Your task to perform on an android device: add a contact Image 0: 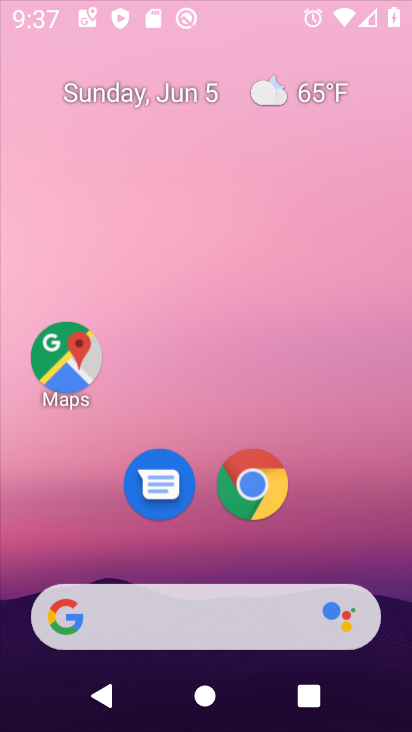
Step 0: press home button
Your task to perform on an android device: add a contact Image 1: 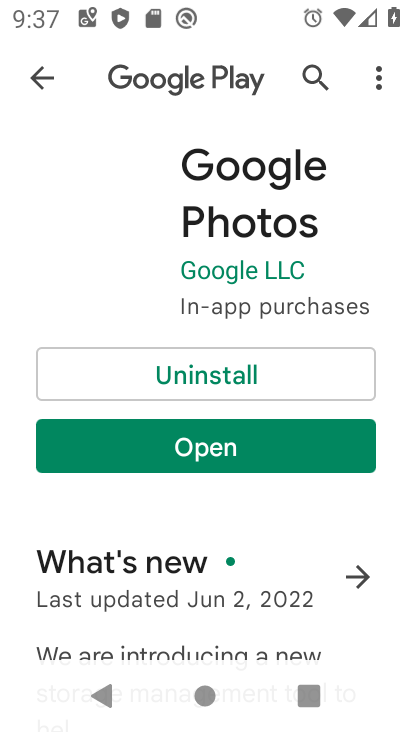
Step 1: click (337, 193)
Your task to perform on an android device: add a contact Image 2: 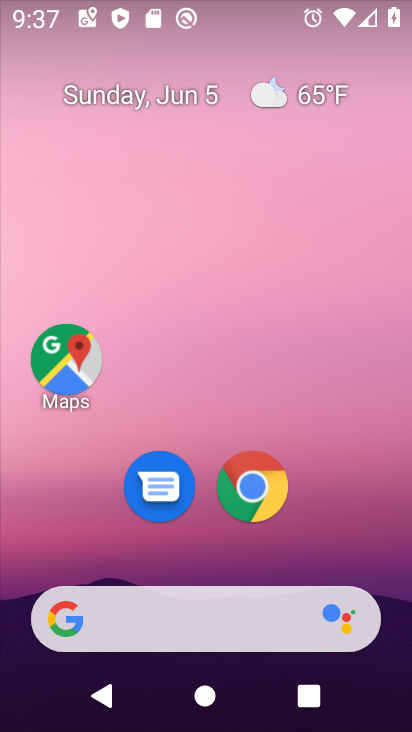
Step 2: drag from (345, 509) to (364, 168)
Your task to perform on an android device: add a contact Image 3: 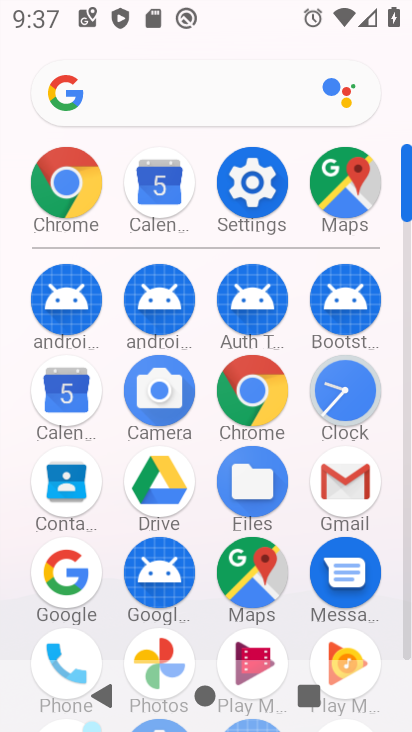
Step 3: click (57, 491)
Your task to perform on an android device: add a contact Image 4: 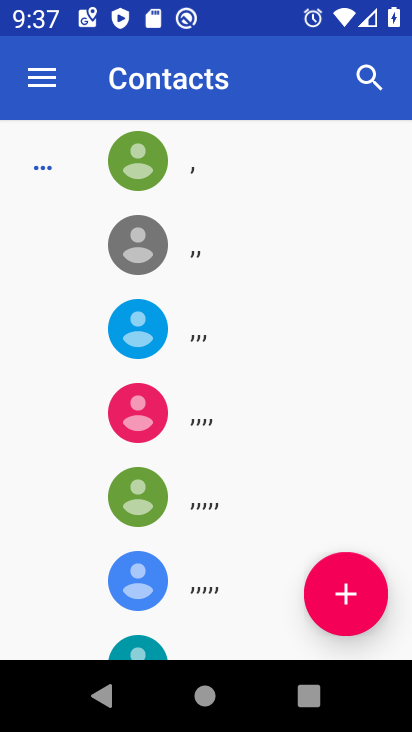
Step 4: click (317, 601)
Your task to perform on an android device: add a contact Image 5: 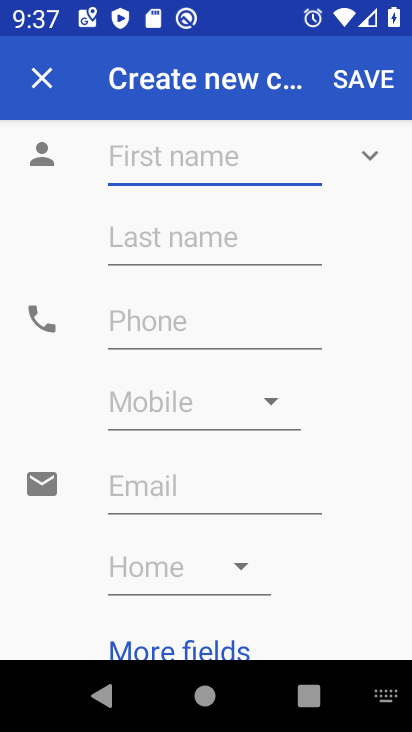
Step 5: type "champ"
Your task to perform on an android device: add a contact Image 6: 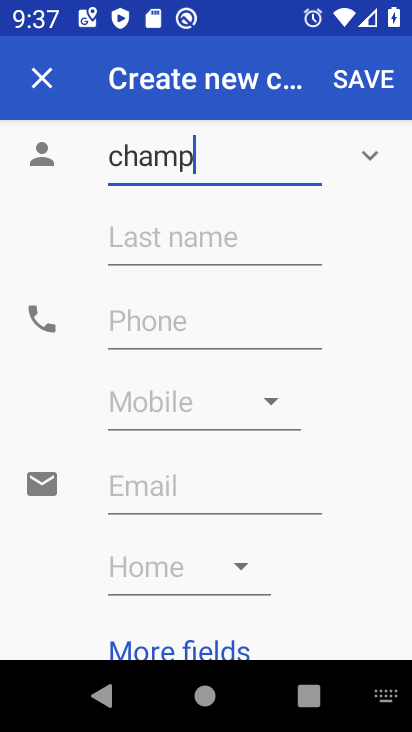
Step 6: click (229, 334)
Your task to perform on an android device: add a contact Image 7: 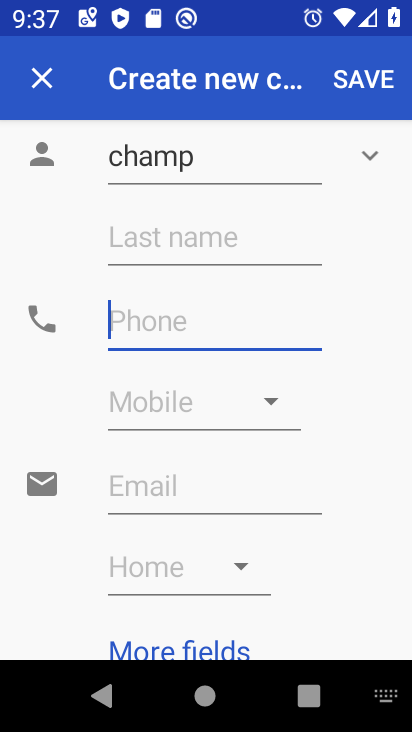
Step 7: type "8887868366"
Your task to perform on an android device: add a contact Image 8: 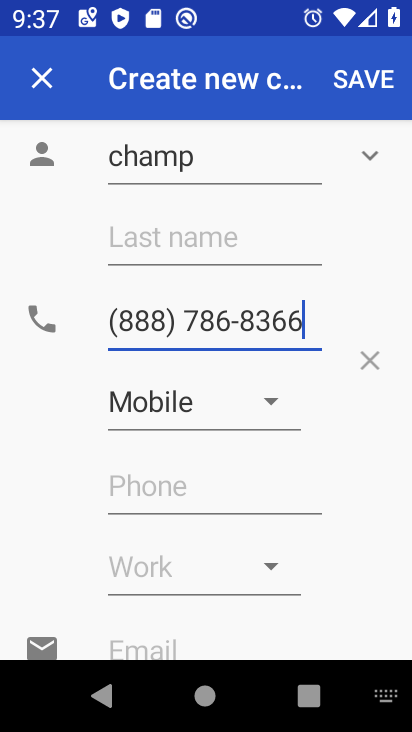
Step 8: click (381, 78)
Your task to perform on an android device: add a contact Image 9: 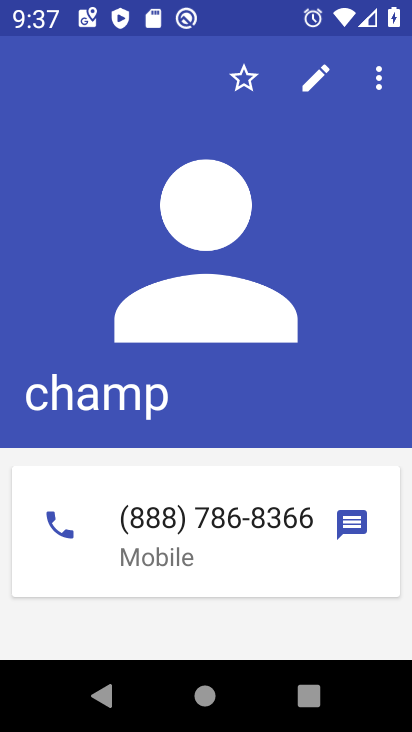
Step 9: task complete